Your task to perform on an android device: turn on airplane mode Image 0: 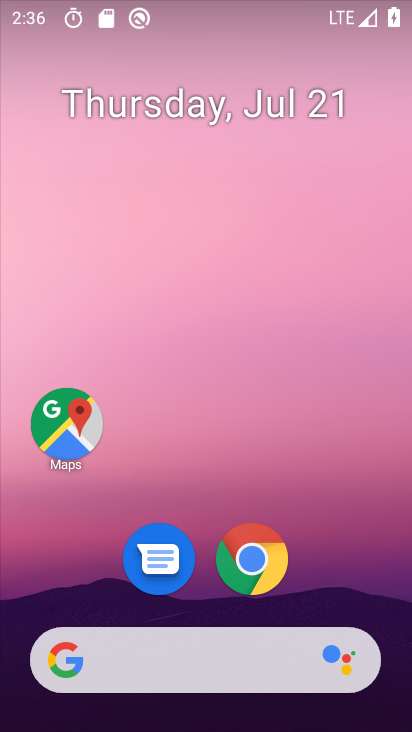
Step 0: drag from (336, 563) to (326, 96)
Your task to perform on an android device: turn on airplane mode Image 1: 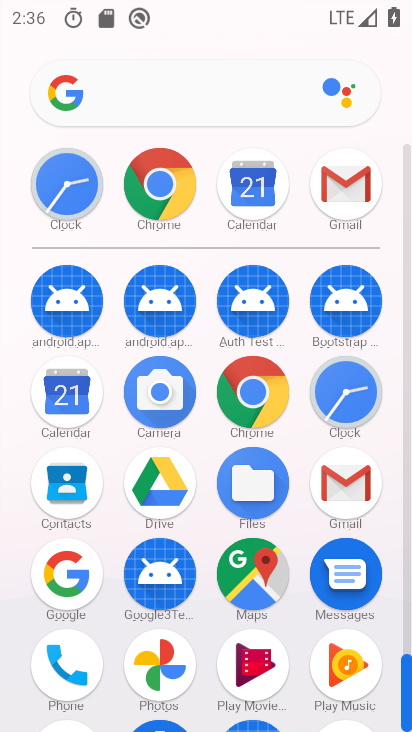
Step 1: drag from (384, 439) to (394, 199)
Your task to perform on an android device: turn on airplane mode Image 2: 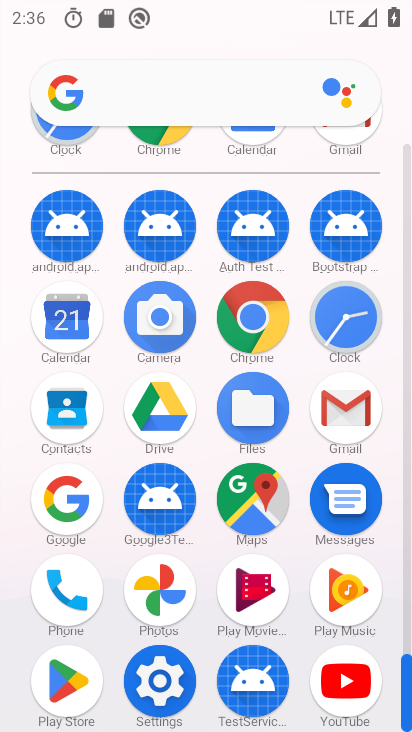
Step 2: click (165, 673)
Your task to perform on an android device: turn on airplane mode Image 3: 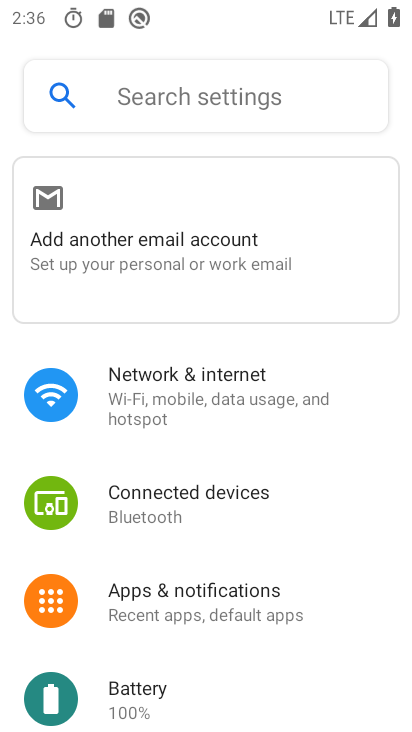
Step 3: drag from (332, 509) to (340, 430)
Your task to perform on an android device: turn on airplane mode Image 4: 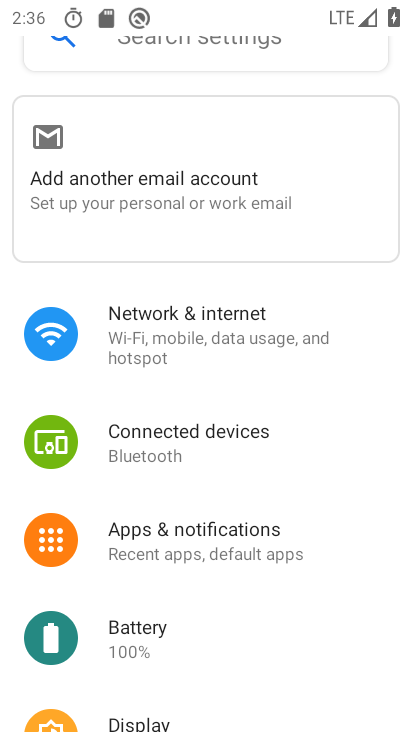
Step 4: drag from (332, 503) to (335, 396)
Your task to perform on an android device: turn on airplane mode Image 5: 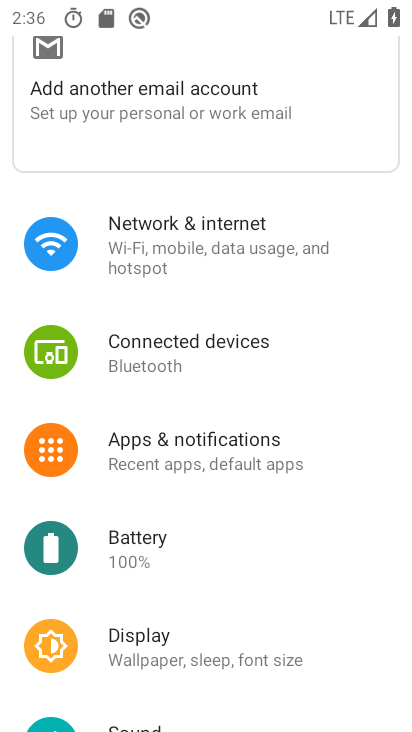
Step 5: drag from (338, 513) to (340, 371)
Your task to perform on an android device: turn on airplane mode Image 6: 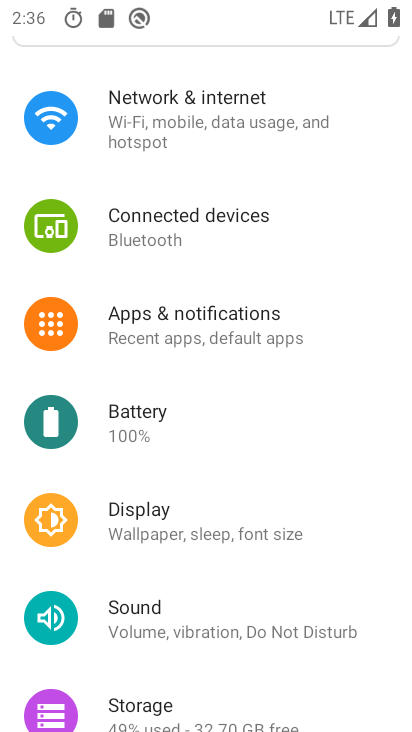
Step 6: drag from (339, 520) to (343, 325)
Your task to perform on an android device: turn on airplane mode Image 7: 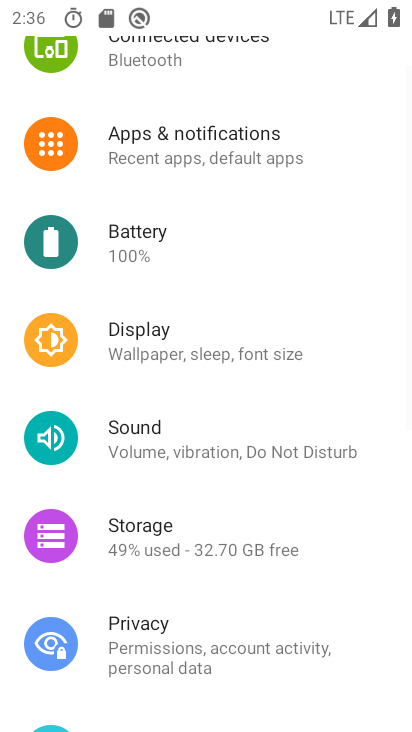
Step 7: drag from (354, 521) to (352, 369)
Your task to perform on an android device: turn on airplane mode Image 8: 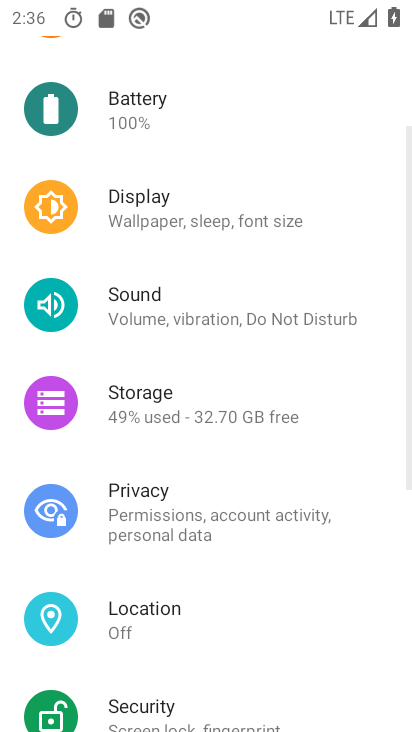
Step 8: drag from (359, 575) to (349, 432)
Your task to perform on an android device: turn on airplane mode Image 9: 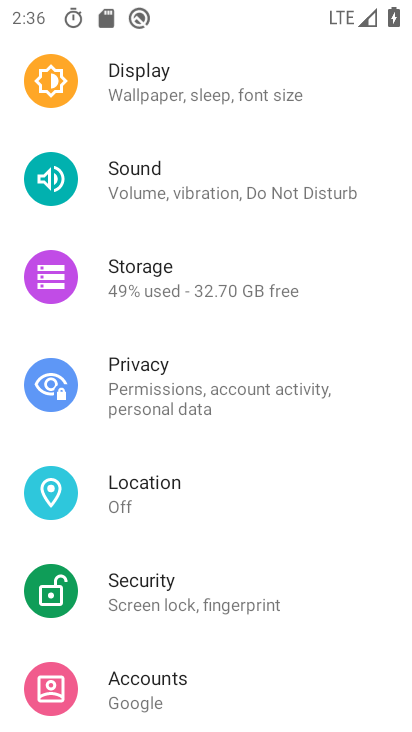
Step 9: drag from (340, 499) to (341, 377)
Your task to perform on an android device: turn on airplane mode Image 10: 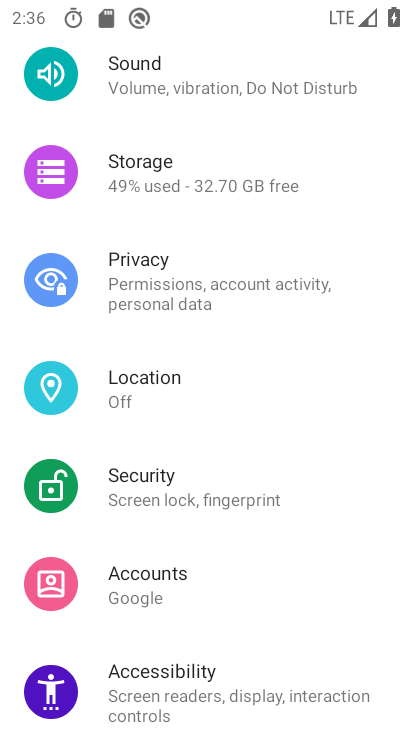
Step 10: drag from (354, 243) to (359, 342)
Your task to perform on an android device: turn on airplane mode Image 11: 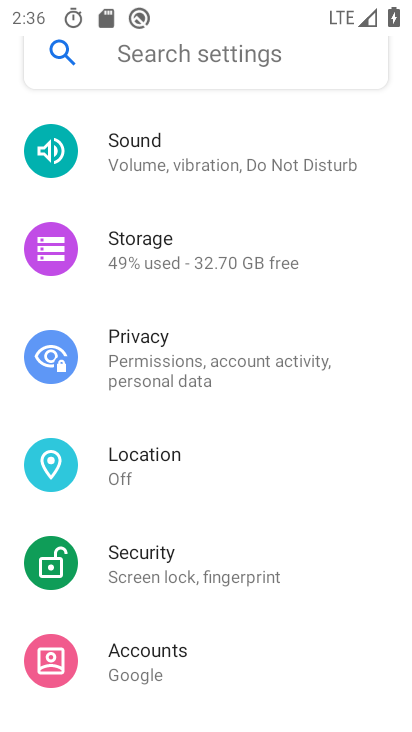
Step 11: drag from (363, 233) to (369, 332)
Your task to perform on an android device: turn on airplane mode Image 12: 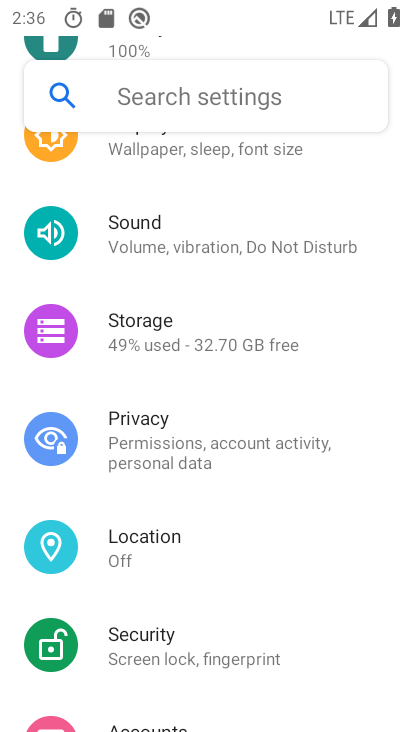
Step 12: drag from (373, 234) to (379, 360)
Your task to perform on an android device: turn on airplane mode Image 13: 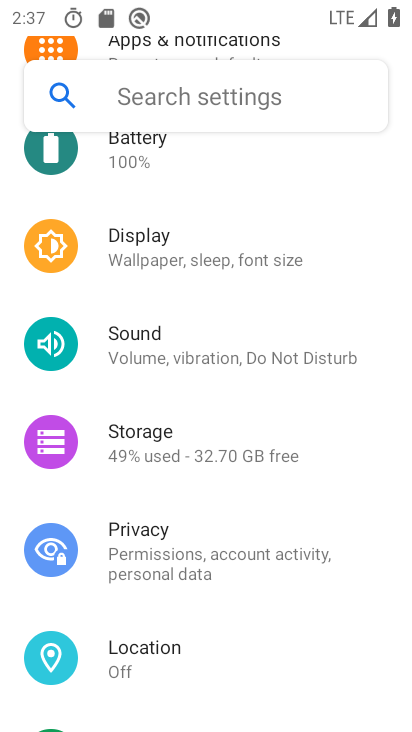
Step 13: drag from (381, 218) to (378, 318)
Your task to perform on an android device: turn on airplane mode Image 14: 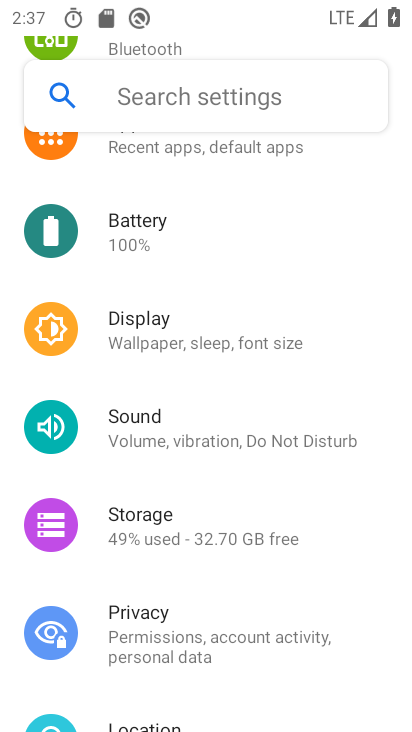
Step 14: drag from (363, 223) to (365, 332)
Your task to perform on an android device: turn on airplane mode Image 15: 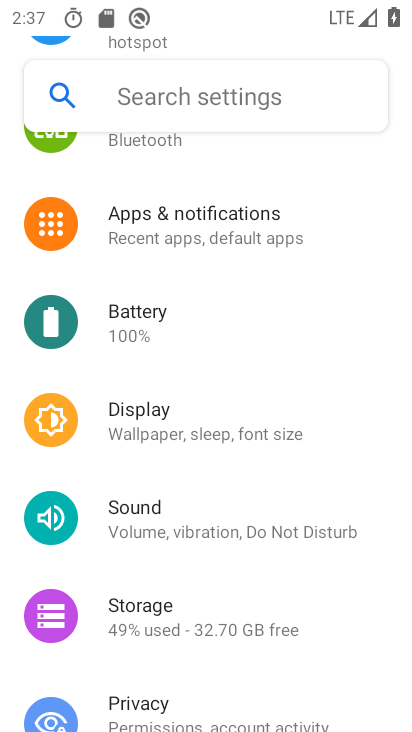
Step 15: drag from (368, 247) to (365, 382)
Your task to perform on an android device: turn on airplane mode Image 16: 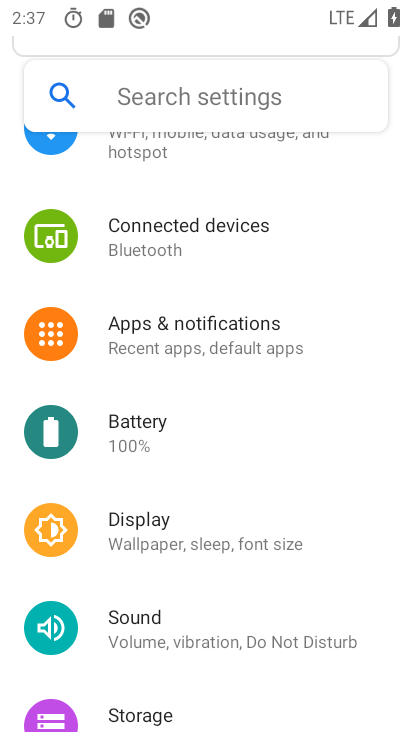
Step 16: drag from (361, 245) to (354, 403)
Your task to perform on an android device: turn on airplane mode Image 17: 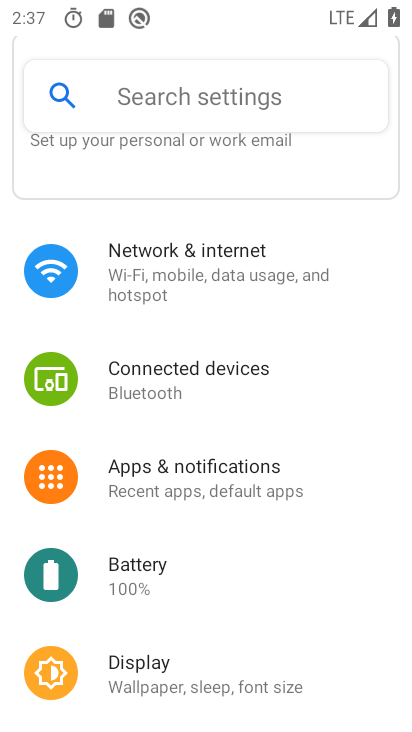
Step 17: click (337, 275)
Your task to perform on an android device: turn on airplane mode Image 18: 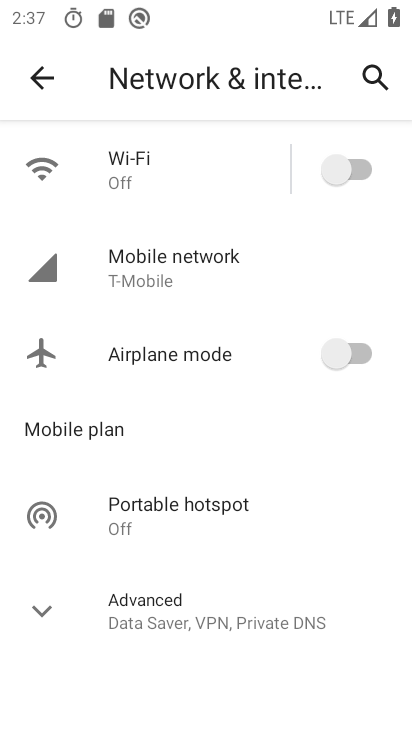
Step 18: click (334, 337)
Your task to perform on an android device: turn on airplane mode Image 19: 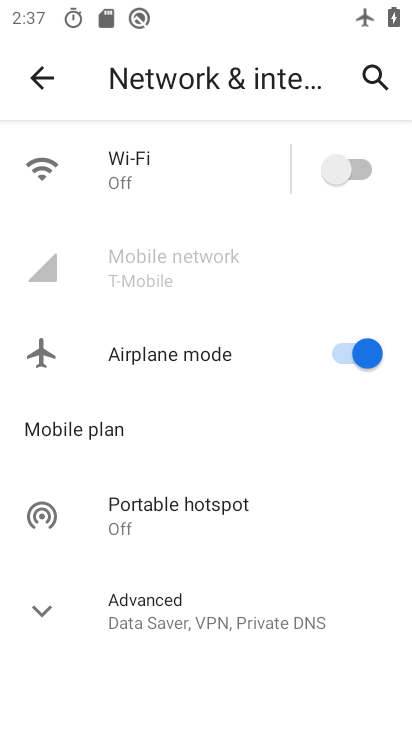
Step 19: task complete